Your task to perform on an android device: What's on my calendar today? Image 0: 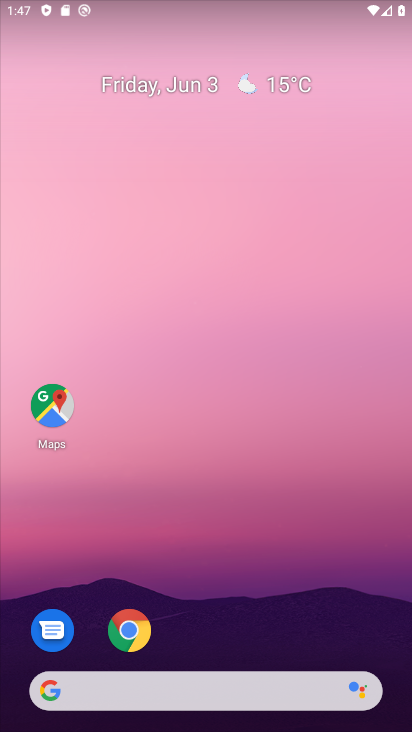
Step 0: press home button
Your task to perform on an android device: What's on my calendar today? Image 1: 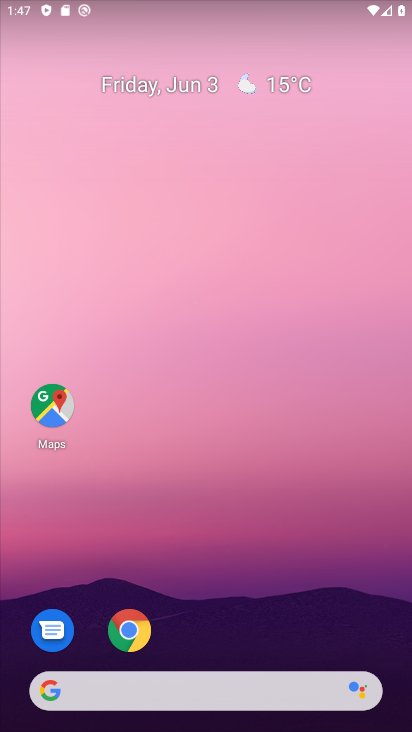
Step 1: drag from (188, 656) to (254, 136)
Your task to perform on an android device: What's on my calendar today? Image 2: 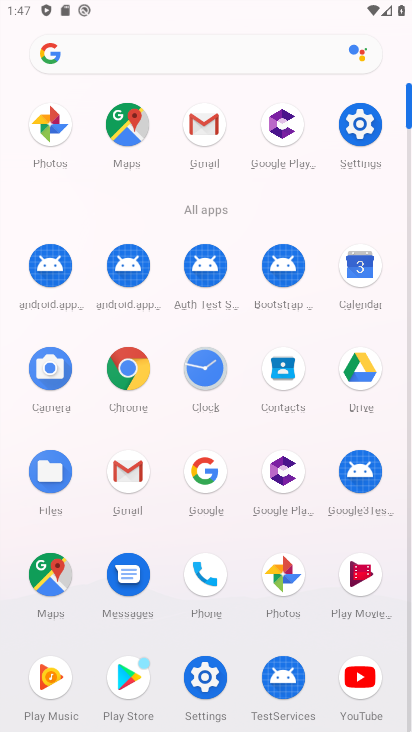
Step 2: click (369, 273)
Your task to perform on an android device: What's on my calendar today? Image 3: 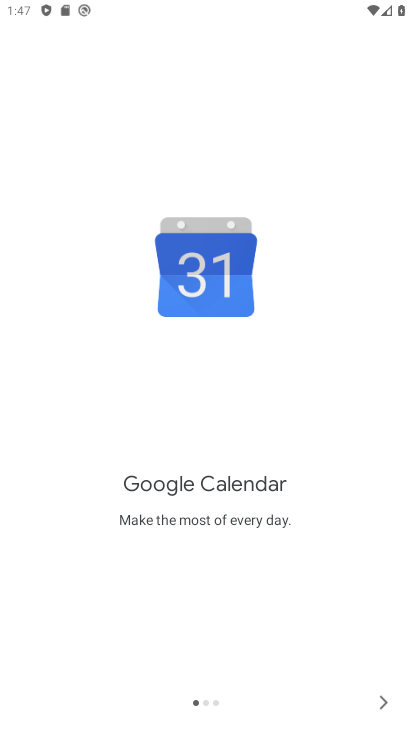
Step 3: click (380, 702)
Your task to perform on an android device: What's on my calendar today? Image 4: 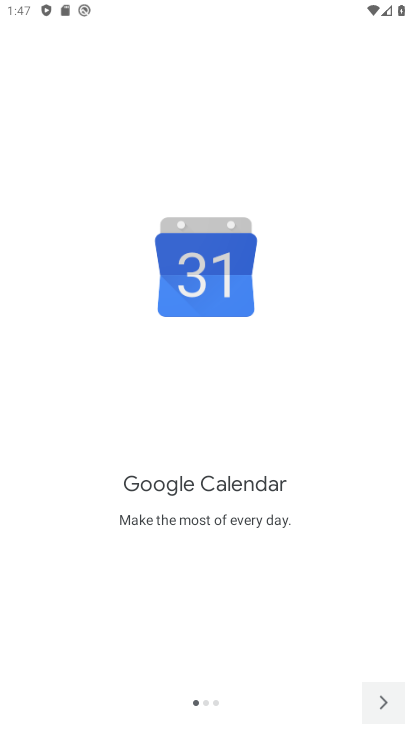
Step 4: click (380, 702)
Your task to perform on an android device: What's on my calendar today? Image 5: 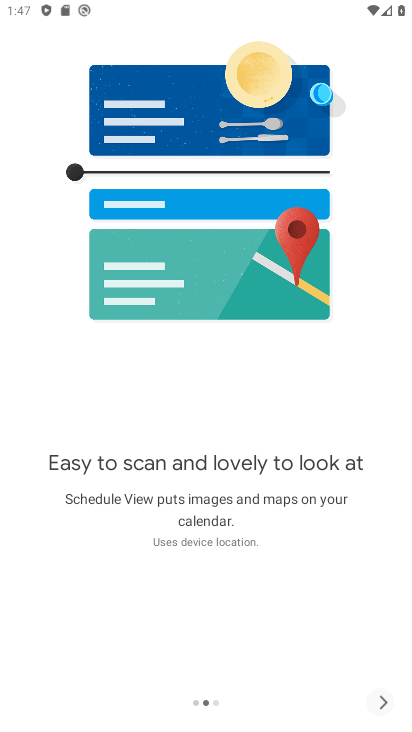
Step 5: click (380, 702)
Your task to perform on an android device: What's on my calendar today? Image 6: 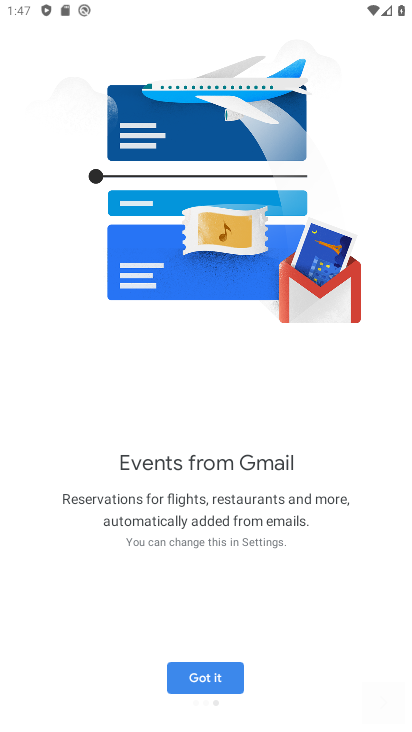
Step 6: click (380, 702)
Your task to perform on an android device: What's on my calendar today? Image 7: 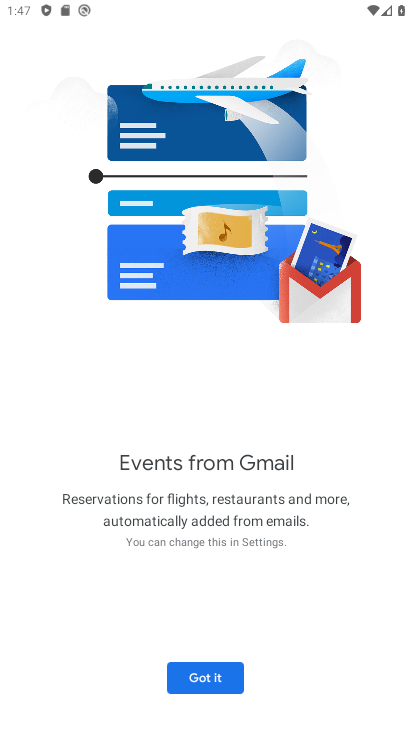
Step 7: click (241, 677)
Your task to perform on an android device: What's on my calendar today? Image 8: 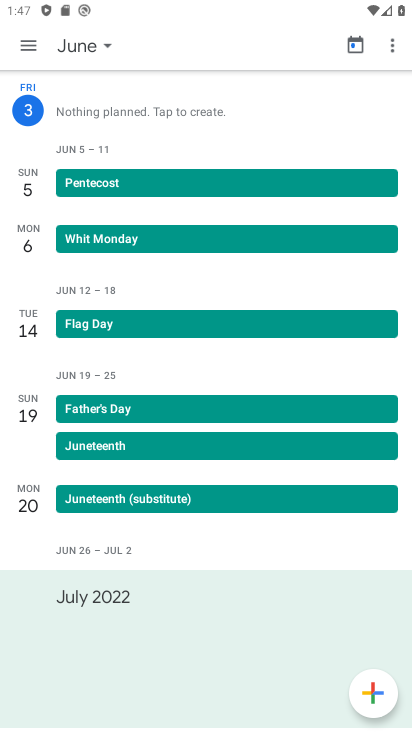
Step 8: task complete